Your task to perform on an android device: Go to privacy settings Image 0: 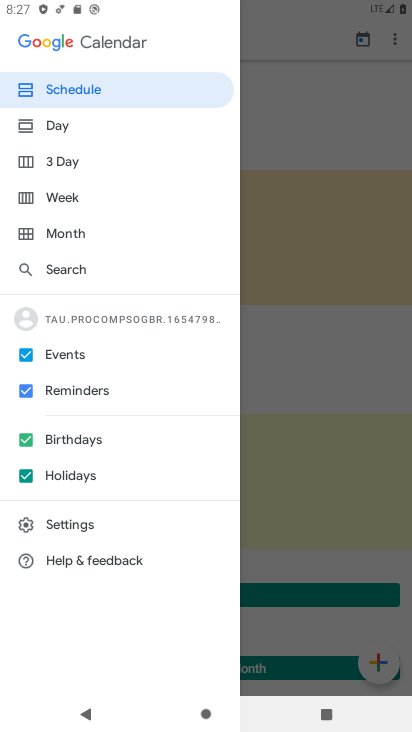
Step 0: press home button
Your task to perform on an android device: Go to privacy settings Image 1: 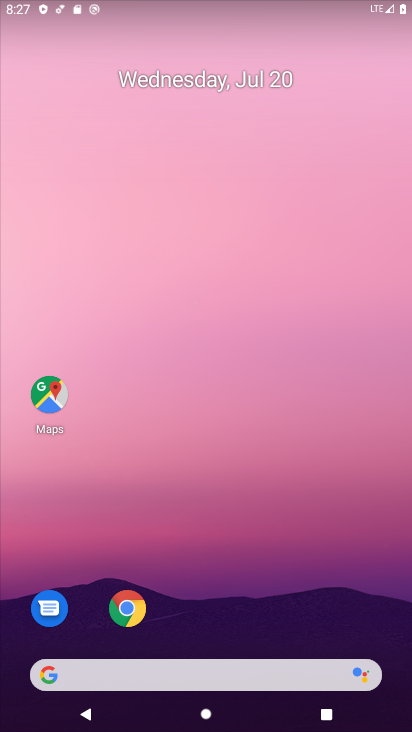
Step 1: drag from (300, 631) to (410, 7)
Your task to perform on an android device: Go to privacy settings Image 2: 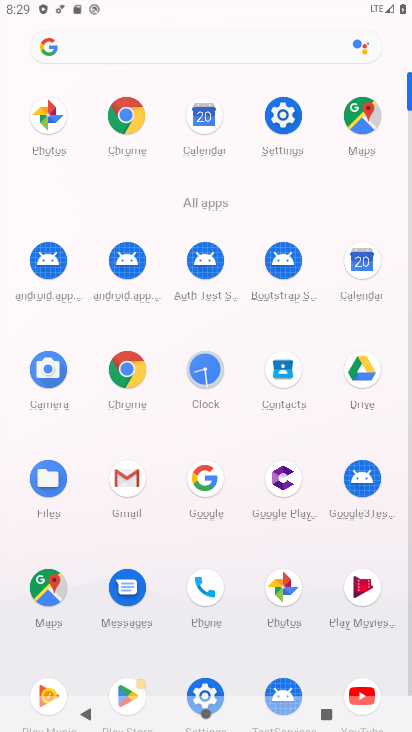
Step 2: click (284, 121)
Your task to perform on an android device: Go to privacy settings Image 3: 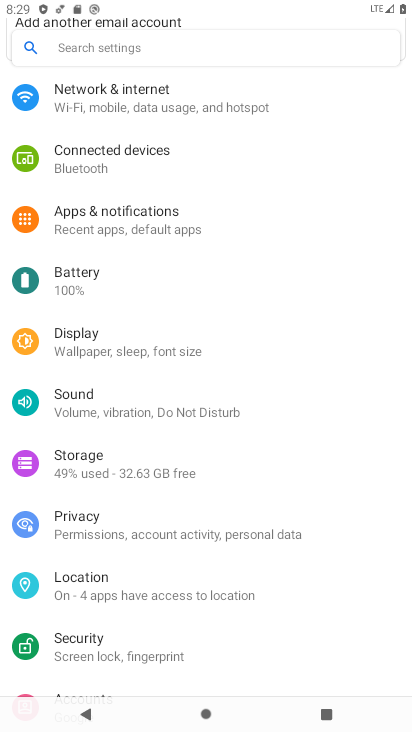
Step 3: click (86, 520)
Your task to perform on an android device: Go to privacy settings Image 4: 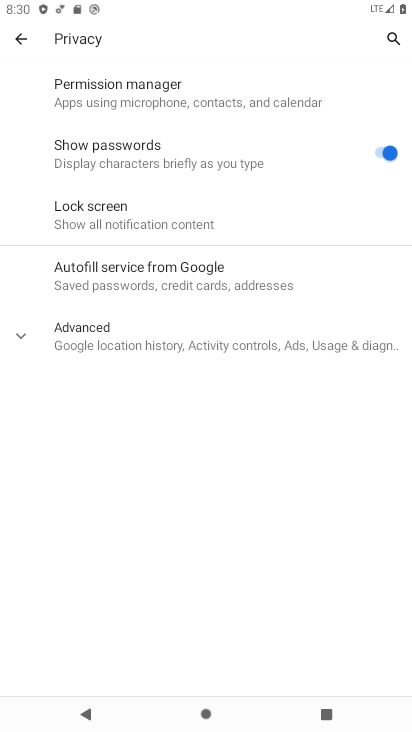
Step 4: task complete